Your task to perform on an android device: open app "Spotify: Music and Podcasts" Image 0: 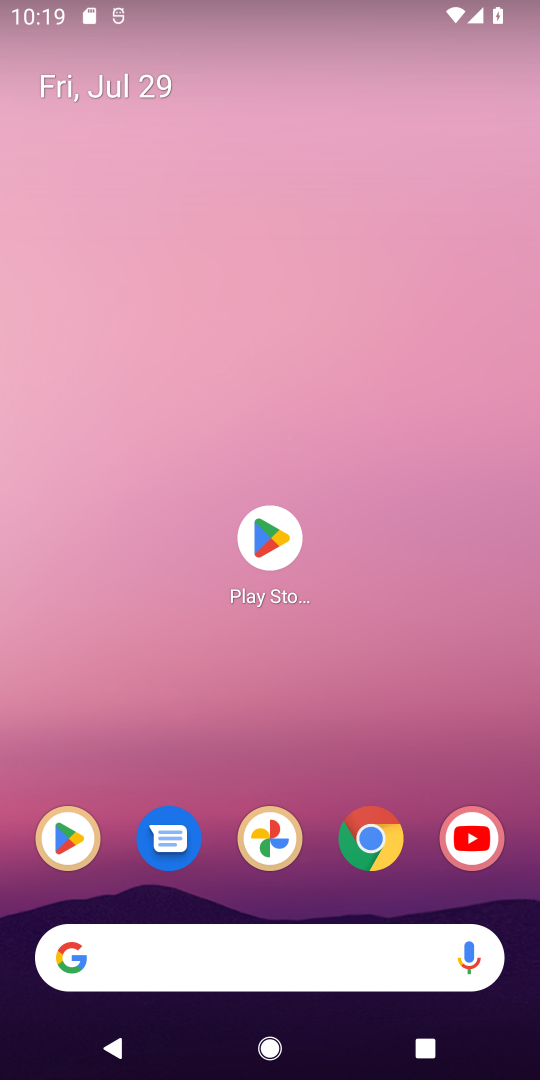
Step 0: click (272, 546)
Your task to perform on an android device: open app "Spotify: Music and Podcasts" Image 1: 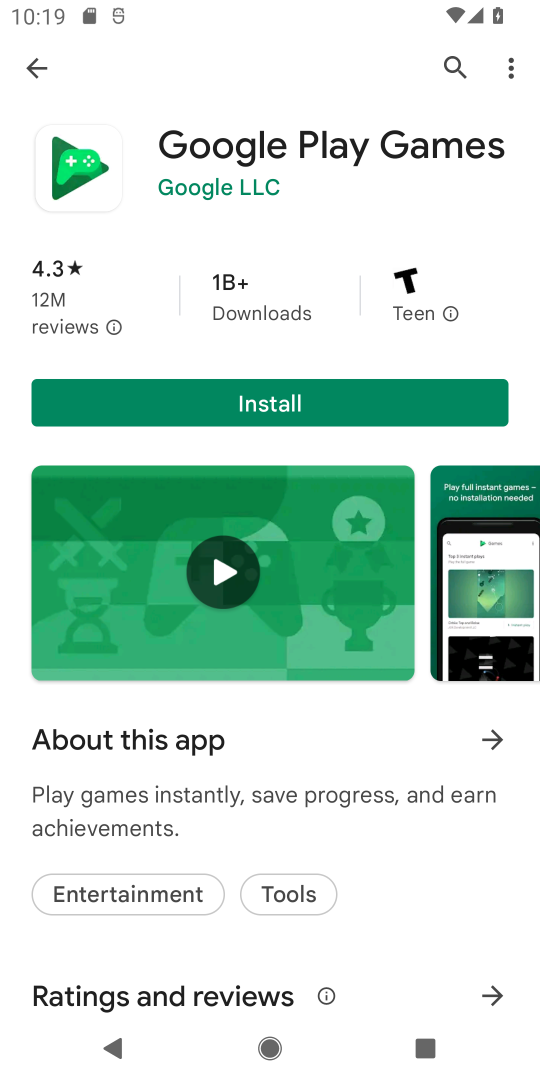
Step 1: click (443, 65)
Your task to perform on an android device: open app "Spotify: Music and Podcasts" Image 2: 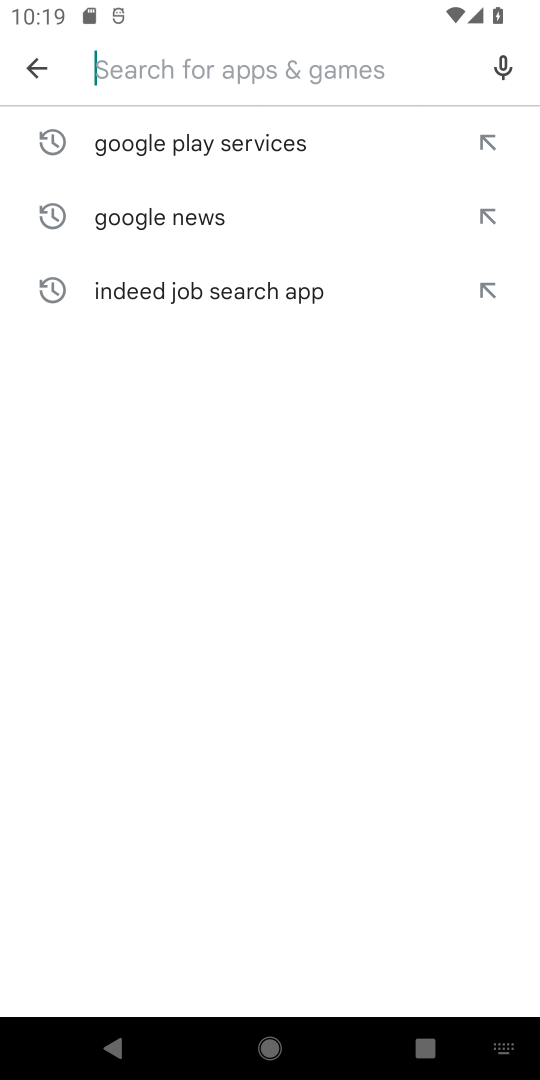
Step 2: type "Spotify: Music and Podcasts"
Your task to perform on an android device: open app "Spotify: Music and Podcasts" Image 3: 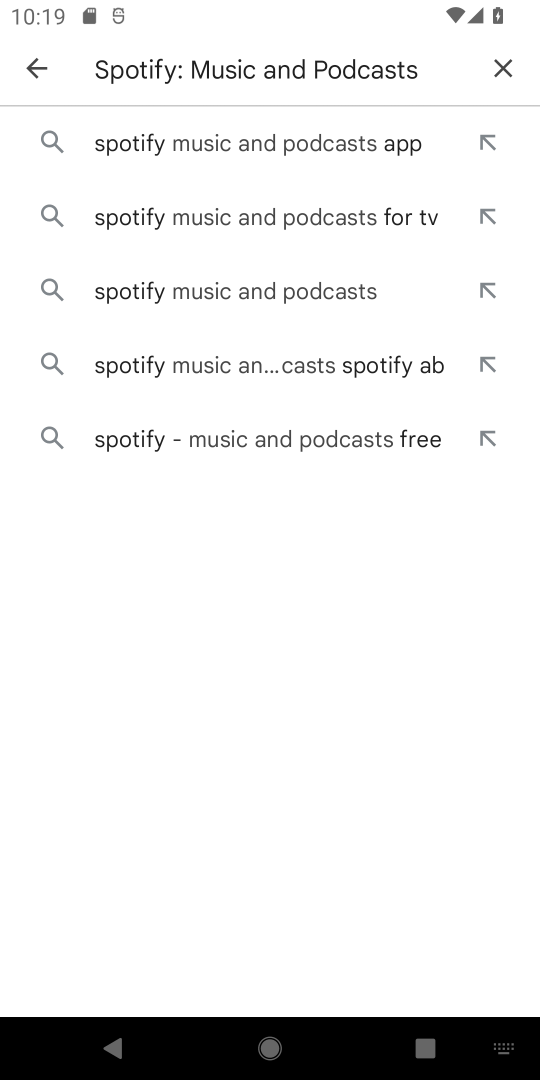
Step 3: click (291, 143)
Your task to perform on an android device: open app "Spotify: Music and Podcasts" Image 4: 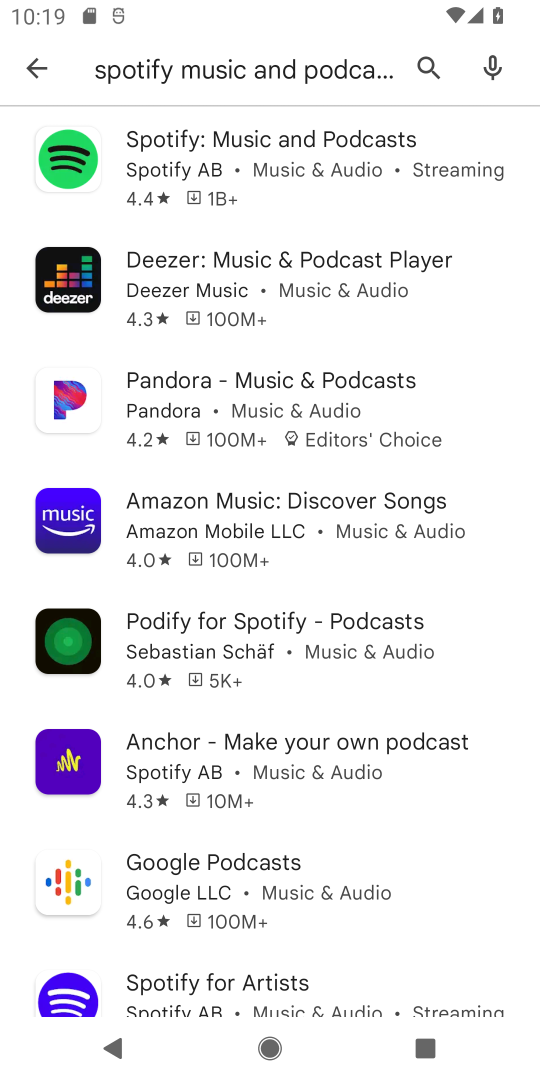
Step 4: click (242, 175)
Your task to perform on an android device: open app "Spotify: Music and Podcasts" Image 5: 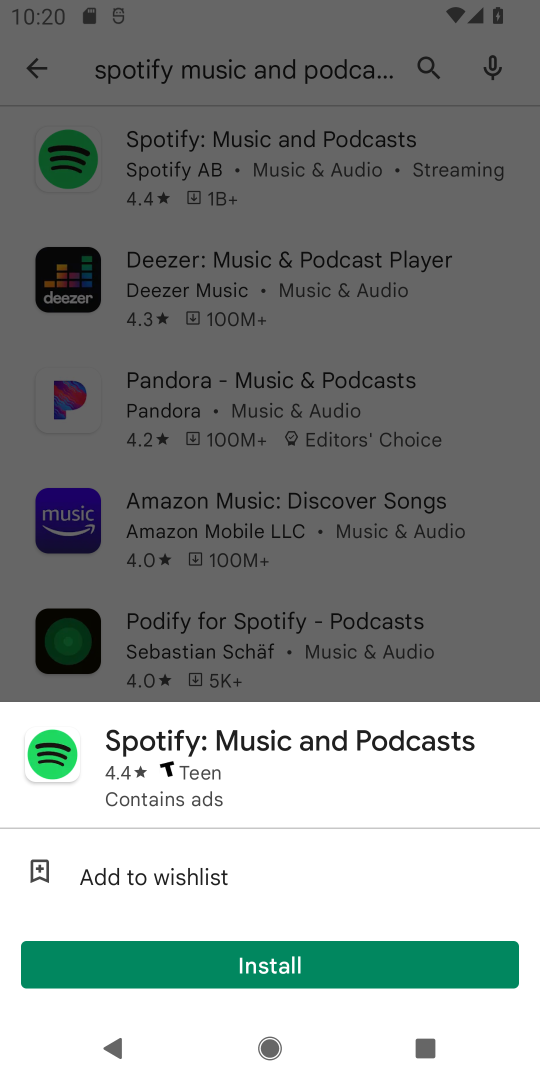
Step 5: task complete